Your task to perform on an android device: visit the assistant section in the google photos Image 0: 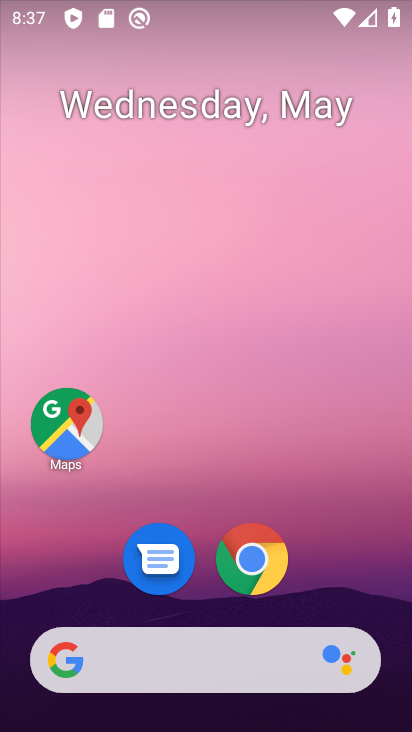
Step 0: drag from (76, 607) to (263, 105)
Your task to perform on an android device: visit the assistant section in the google photos Image 1: 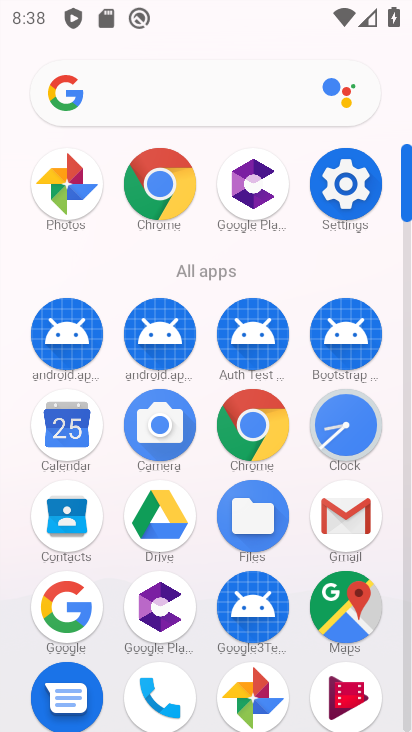
Step 1: drag from (223, 570) to (285, 308)
Your task to perform on an android device: visit the assistant section in the google photos Image 2: 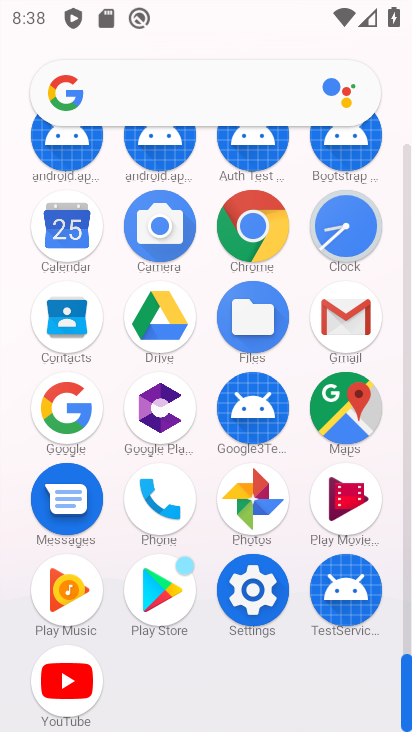
Step 2: click (261, 519)
Your task to perform on an android device: visit the assistant section in the google photos Image 3: 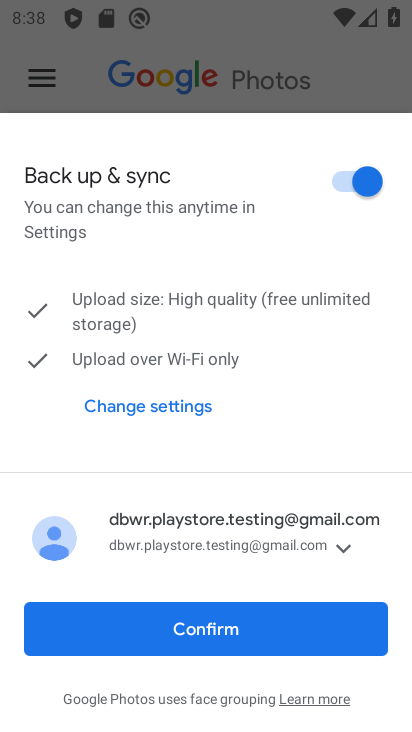
Step 3: click (229, 634)
Your task to perform on an android device: visit the assistant section in the google photos Image 4: 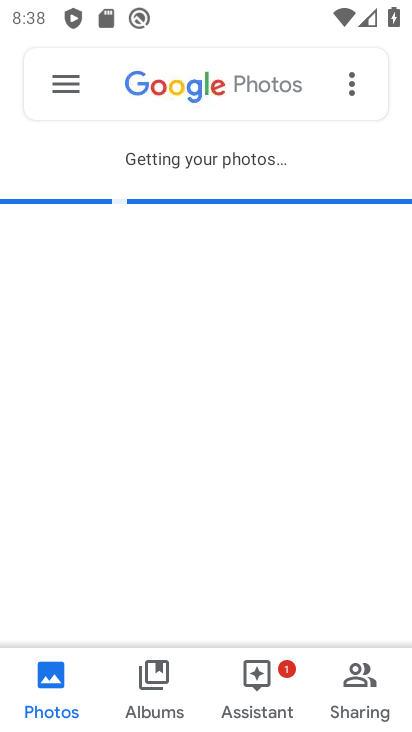
Step 4: click (265, 677)
Your task to perform on an android device: visit the assistant section in the google photos Image 5: 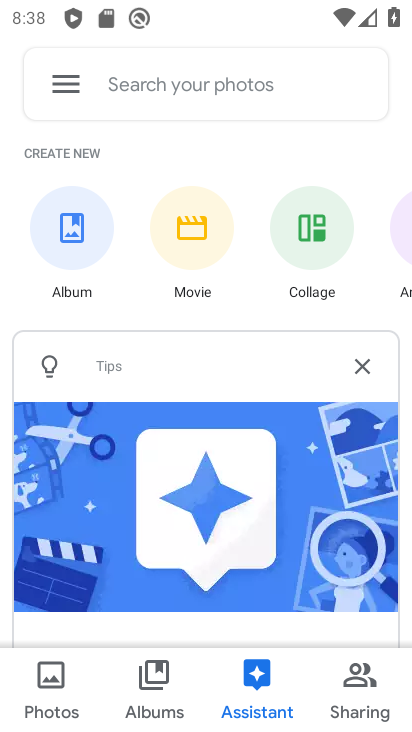
Step 5: task complete